Your task to perform on an android device: Open Google Chrome and open the bookmarks view Image 0: 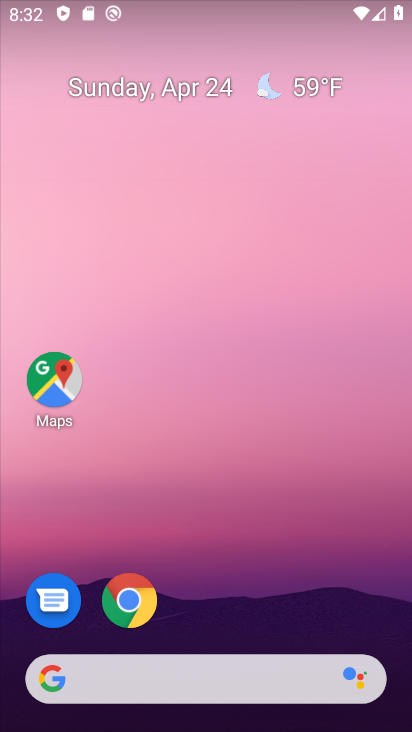
Step 0: click (129, 600)
Your task to perform on an android device: Open Google Chrome and open the bookmarks view Image 1: 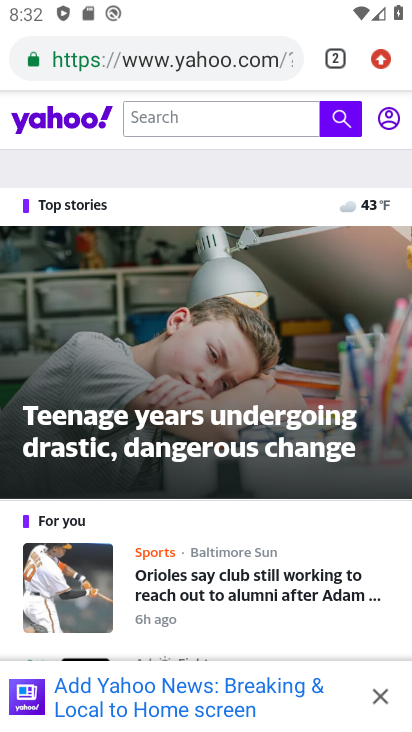
Step 1: task complete